Your task to perform on an android device: turn on the 12-hour format for clock Image 0: 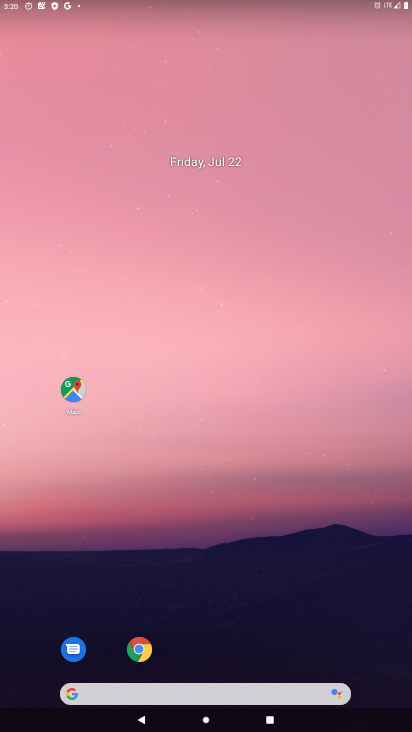
Step 0: drag from (271, 628) to (201, 164)
Your task to perform on an android device: turn on the 12-hour format for clock Image 1: 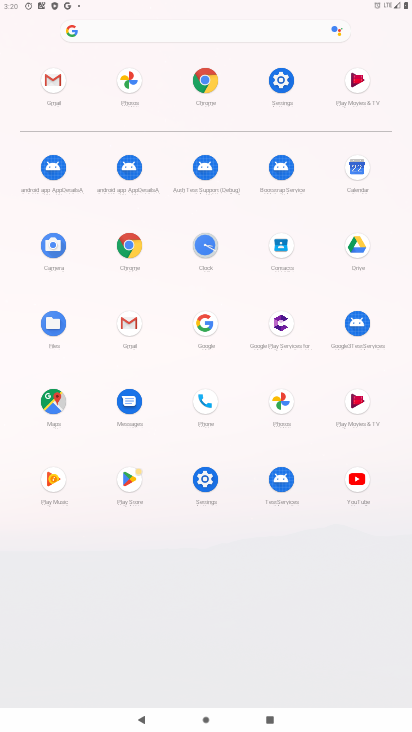
Step 1: click (206, 245)
Your task to perform on an android device: turn on the 12-hour format for clock Image 2: 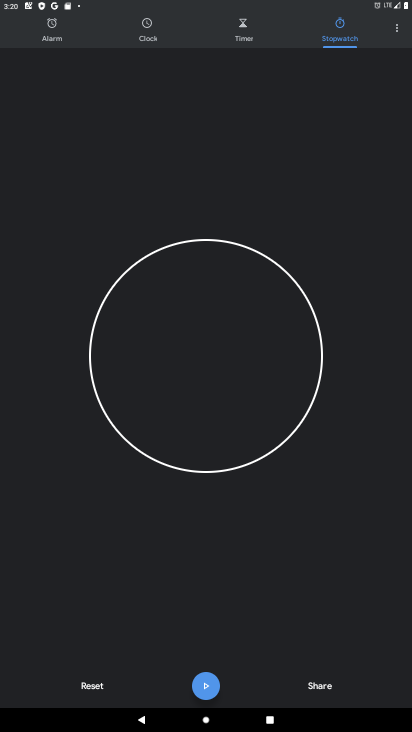
Step 2: click (392, 32)
Your task to perform on an android device: turn on the 12-hour format for clock Image 3: 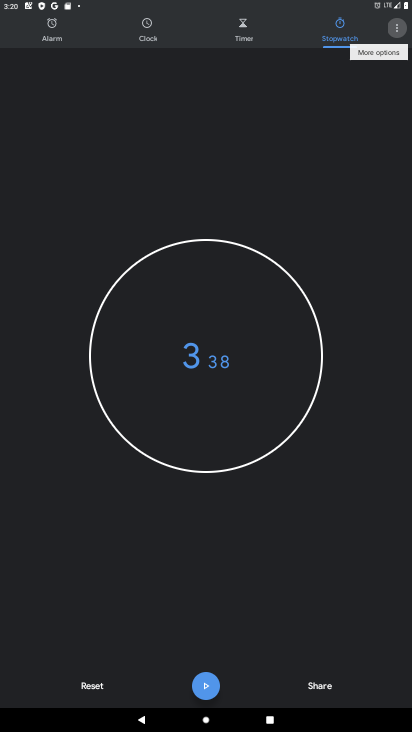
Step 3: click (394, 29)
Your task to perform on an android device: turn on the 12-hour format for clock Image 4: 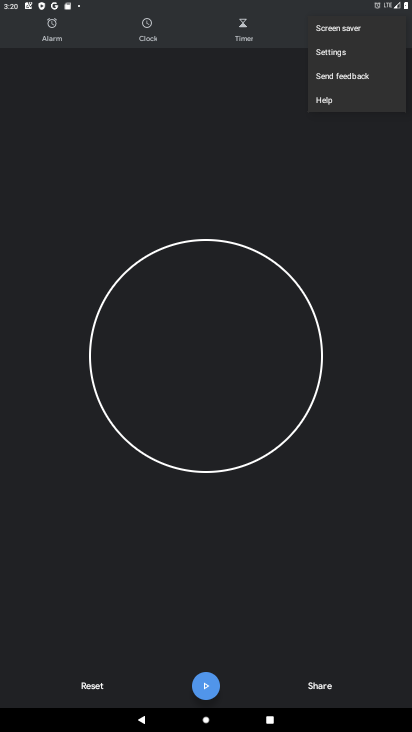
Step 4: click (321, 51)
Your task to perform on an android device: turn on the 12-hour format for clock Image 5: 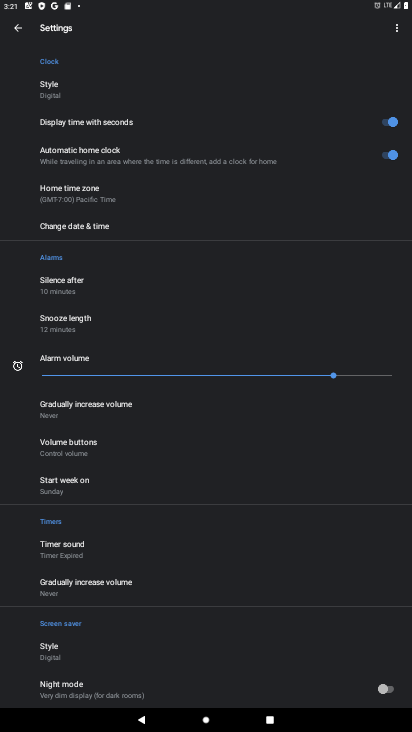
Step 5: click (101, 229)
Your task to perform on an android device: turn on the 12-hour format for clock Image 6: 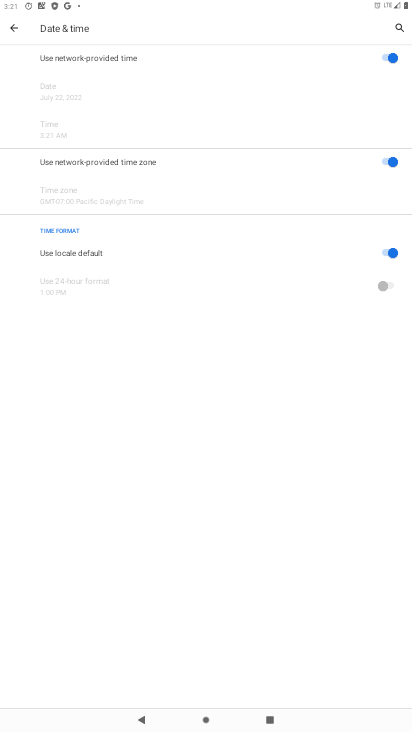
Step 6: task complete